Your task to perform on an android device: Open wifi settings Image 0: 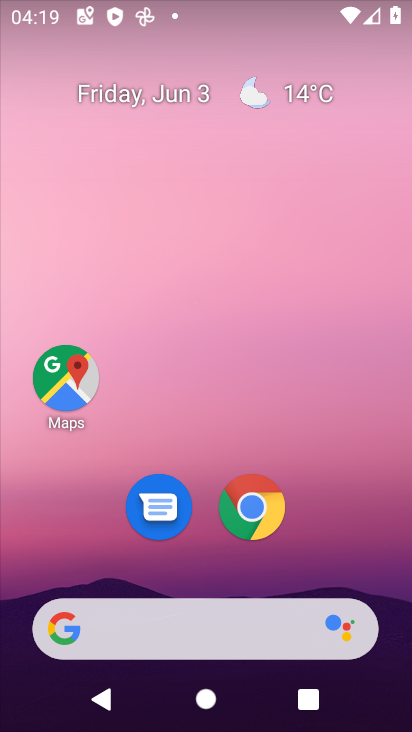
Step 0: press home button
Your task to perform on an android device: Open wifi settings Image 1: 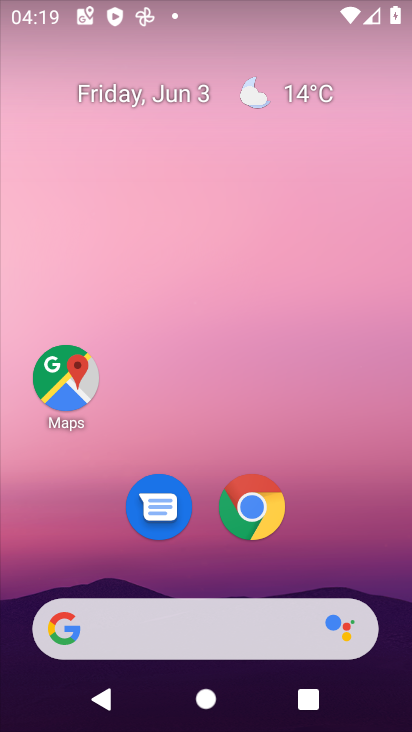
Step 1: drag from (213, 556) to (42, 10)
Your task to perform on an android device: Open wifi settings Image 2: 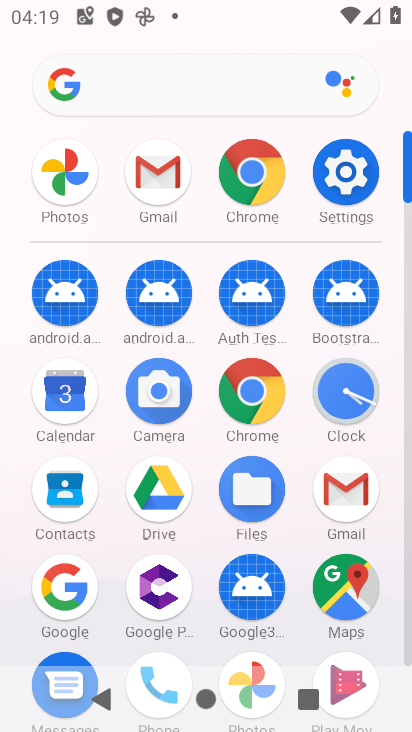
Step 2: click (347, 197)
Your task to perform on an android device: Open wifi settings Image 3: 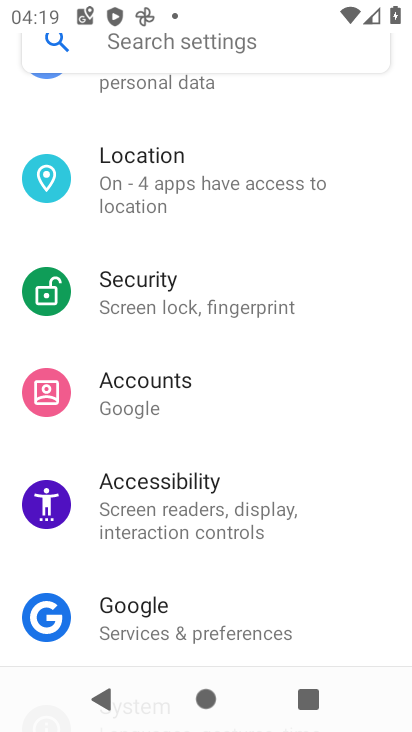
Step 3: drag from (238, 149) to (256, 606)
Your task to perform on an android device: Open wifi settings Image 4: 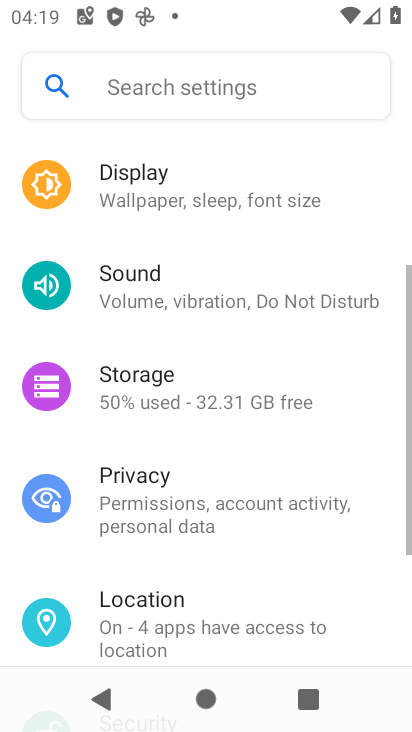
Step 4: drag from (230, 259) to (298, 705)
Your task to perform on an android device: Open wifi settings Image 5: 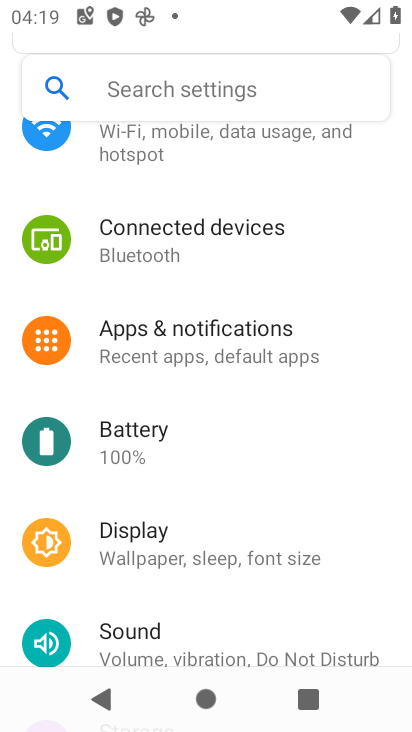
Step 5: drag from (211, 174) to (304, 614)
Your task to perform on an android device: Open wifi settings Image 6: 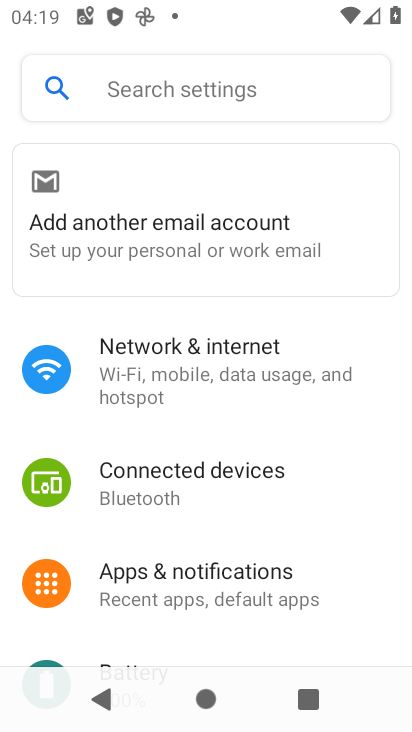
Step 6: click (178, 352)
Your task to perform on an android device: Open wifi settings Image 7: 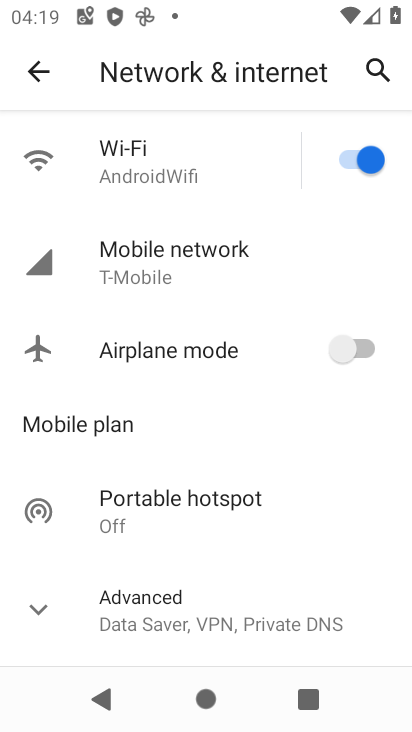
Step 7: click (129, 148)
Your task to perform on an android device: Open wifi settings Image 8: 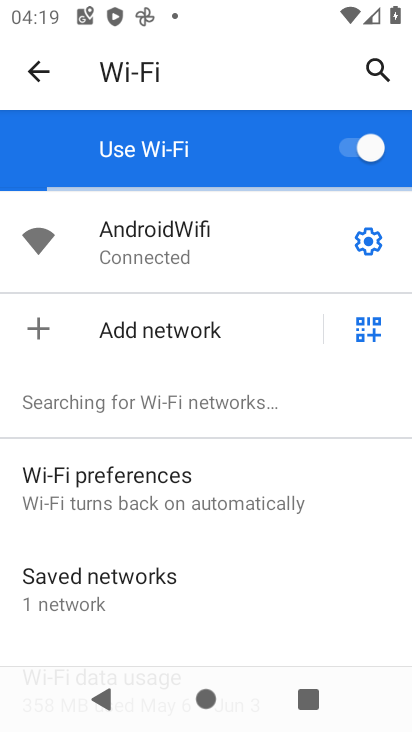
Step 8: task complete